Your task to perform on an android device: What's the weather? Image 0: 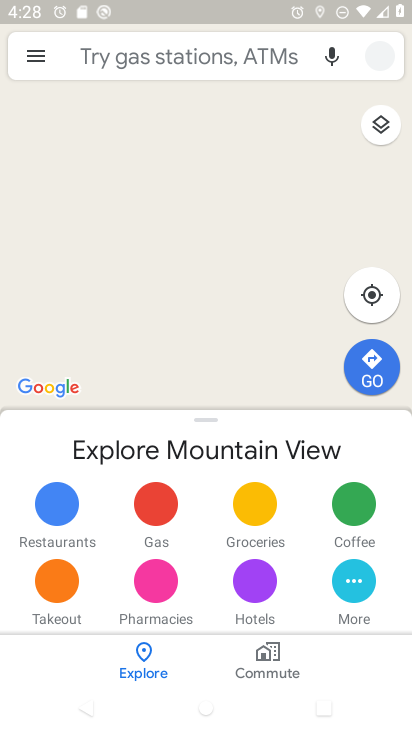
Step 0: drag from (393, 623) to (330, 210)
Your task to perform on an android device: What's the weather? Image 1: 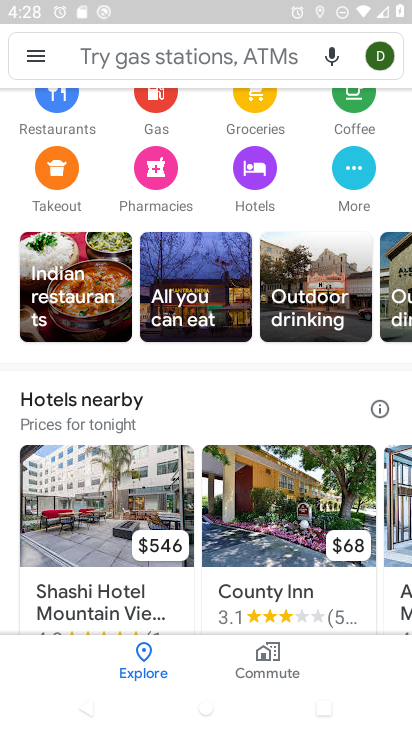
Step 1: press home button
Your task to perform on an android device: What's the weather? Image 2: 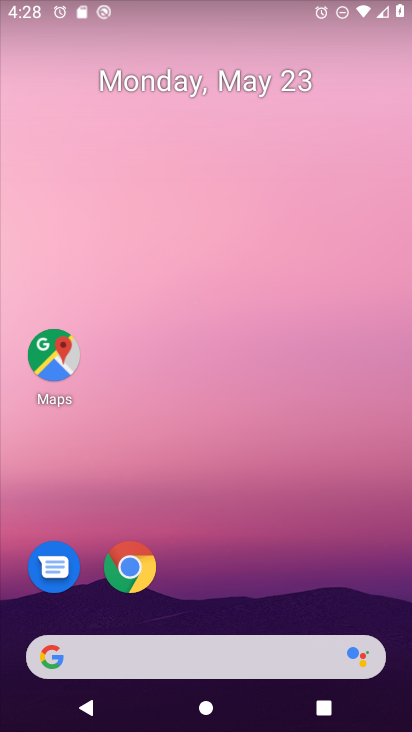
Step 2: click (177, 667)
Your task to perform on an android device: What's the weather? Image 3: 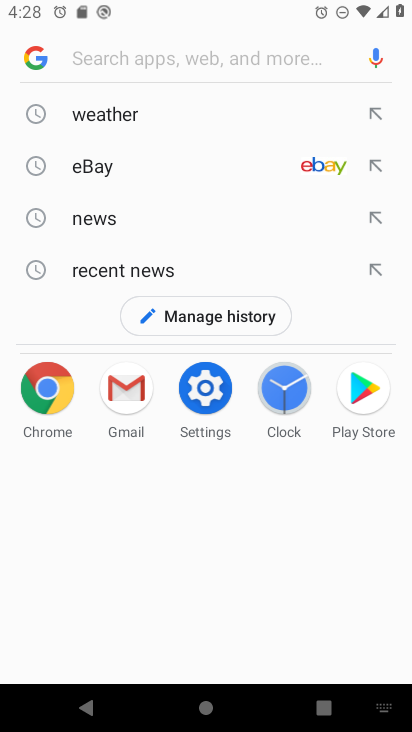
Step 3: click (95, 116)
Your task to perform on an android device: What's the weather? Image 4: 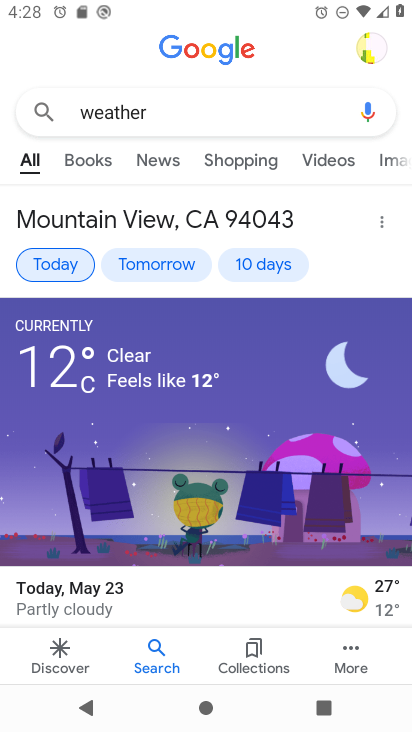
Step 4: task complete